Your task to perform on an android device: Open Google Image 0: 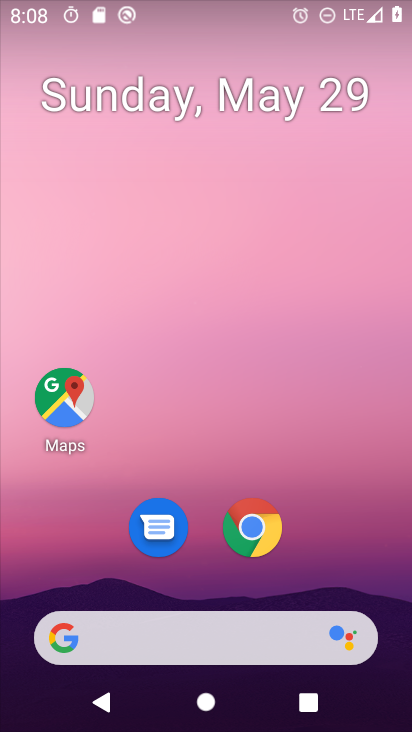
Step 0: drag from (390, 633) to (320, 79)
Your task to perform on an android device: Open Google Image 1: 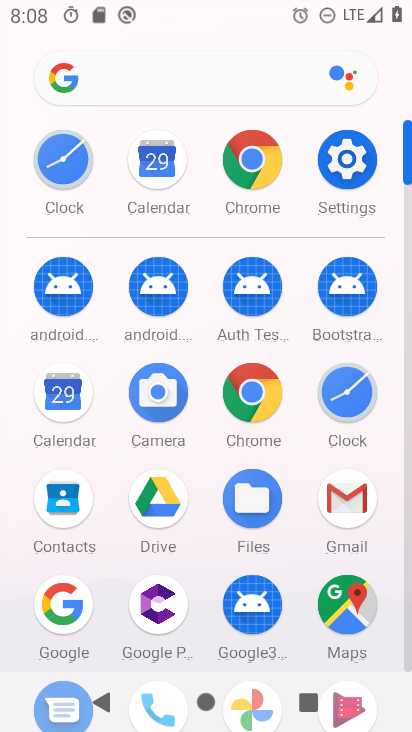
Step 1: click (66, 599)
Your task to perform on an android device: Open Google Image 2: 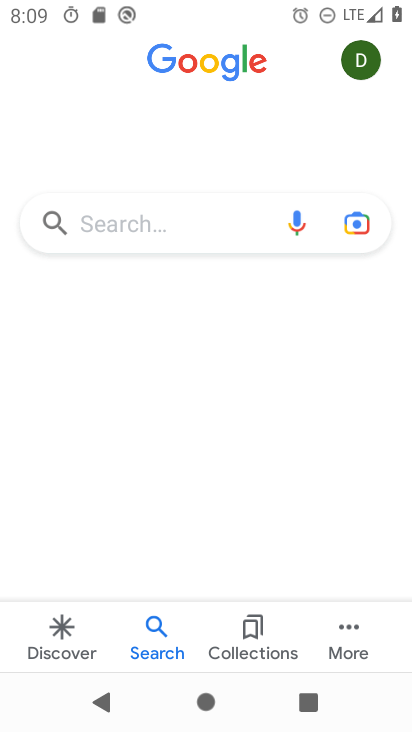
Step 2: task complete